Your task to perform on an android device: see creations saved in the google photos Image 0: 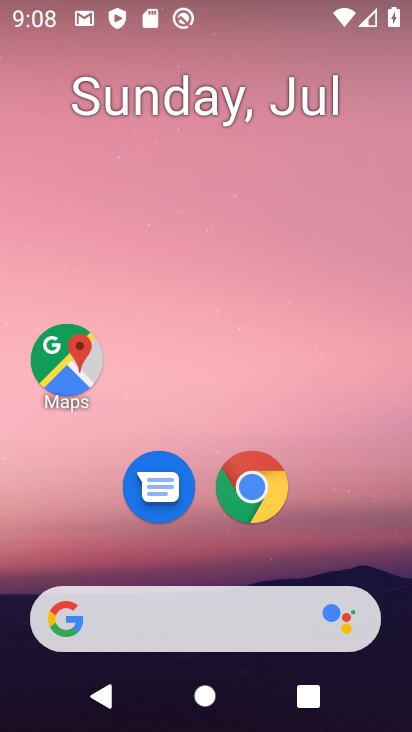
Step 0: drag from (199, 487) to (259, 31)
Your task to perform on an android device: see creations saved in the google photos Image 1: 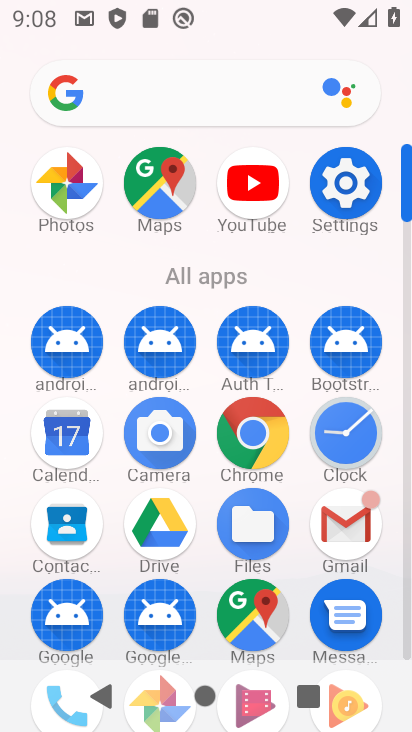
Step 1: drag from (143, 604) to (191, 241)
Your task to perform on an android device: see creations saved in the google photos Image 2: 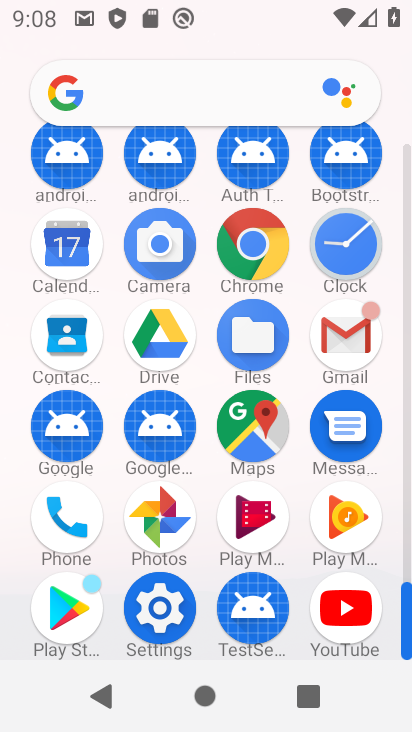
Step 2: click (155, 514)
Your task to perform on an android device: see creations saved in the google photos Image 3: 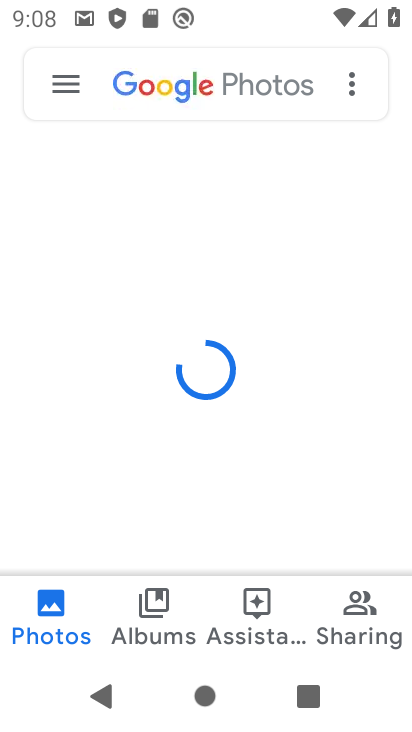
Step 3: click (53, 112)
Your task to perform on an android device: see creations saved in the google photos Image 4: 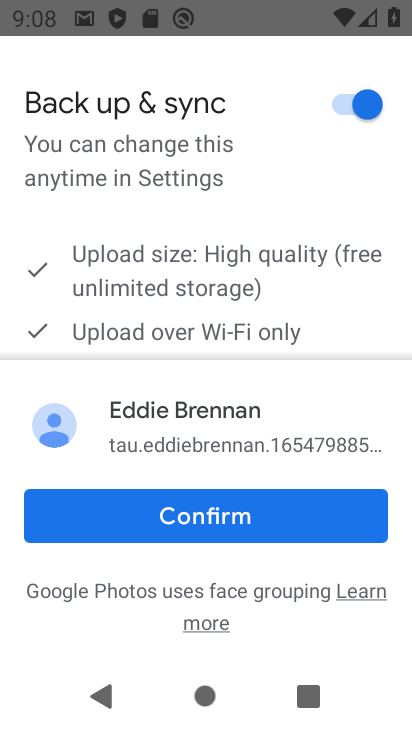
Step 4: click (226, 494)
Your task to perform on an android device: see creations saved in the google photos Image 5: 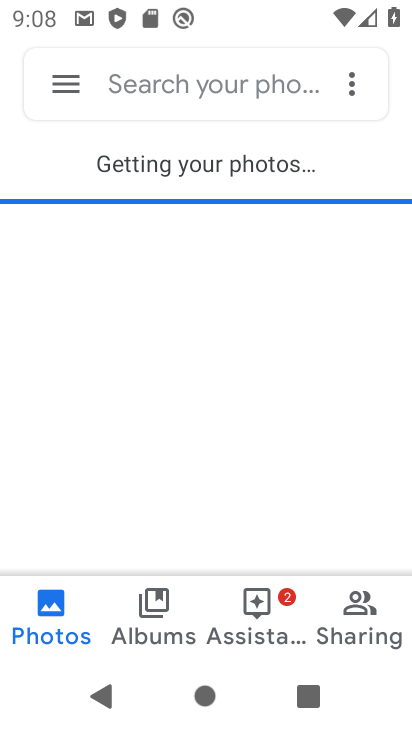
Step 5: click (66, 88)
Your task to perform on an android device: see creations saved in the google photos Image 6: 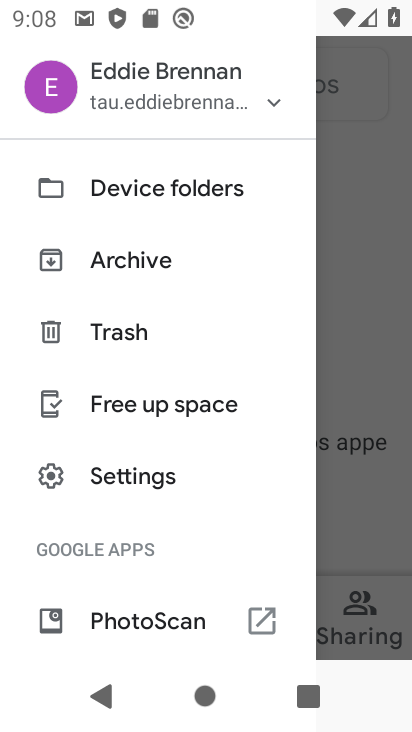
Step 6: click (144, 270)
Your task to perform on an android device: see creations saved in the google photos Image 7: 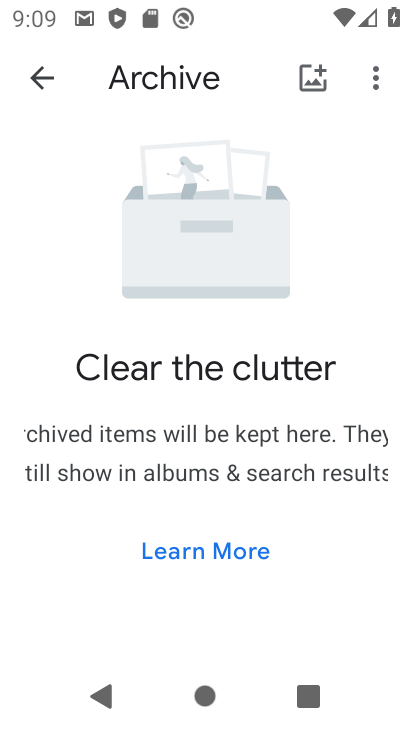
Step 7: task complete